Your task to perform on an android device: Go to Google maps Image 0: 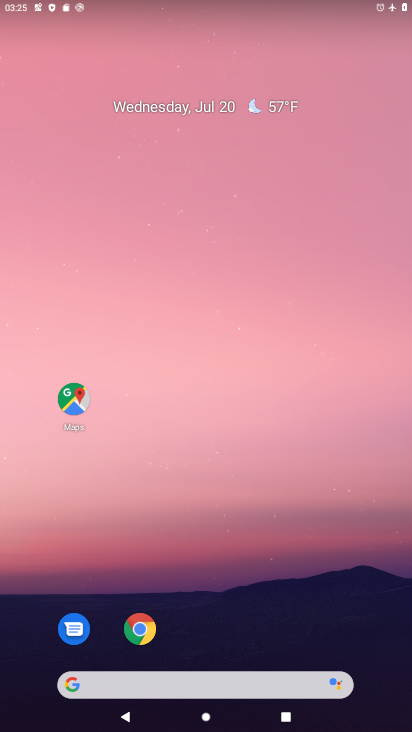
Step 0: click (74, 398)
Your task to perform on an android device: Go to Google maps Image 1: 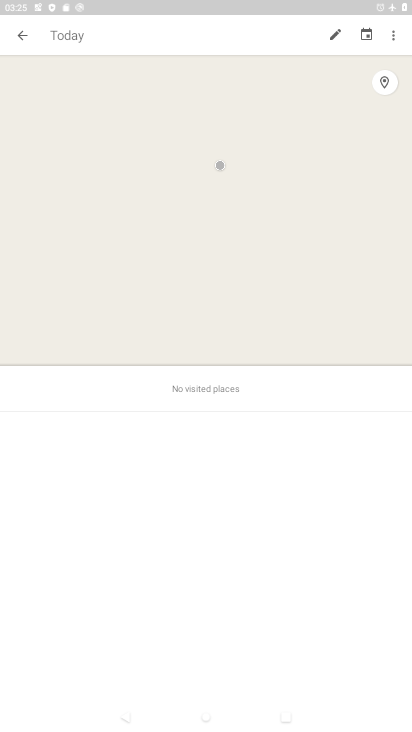
Step 1: task complete